Your task to perform on an android device: Go to accessibility settings Image 0: 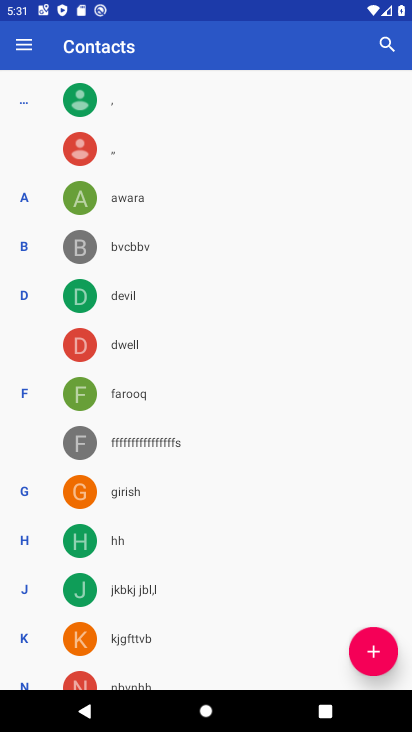
Step 0: press home button
Your task to perform on an android device: Go to accessibility settings Image 1: 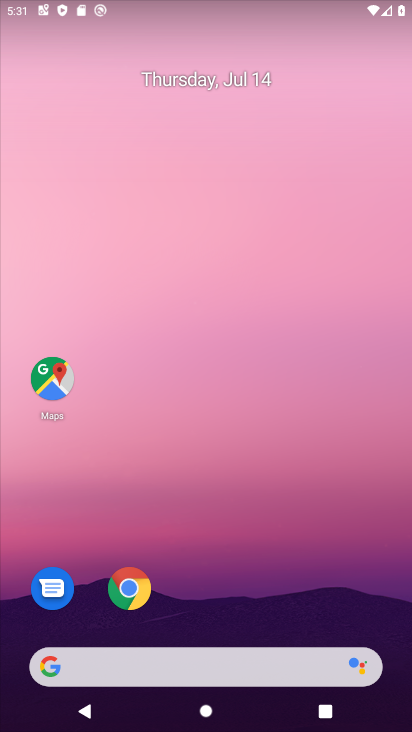
Step 1: drag from (149, 615) to (178, 307)
Your task to perform on an android device: Go to accessibility settings Image 2: 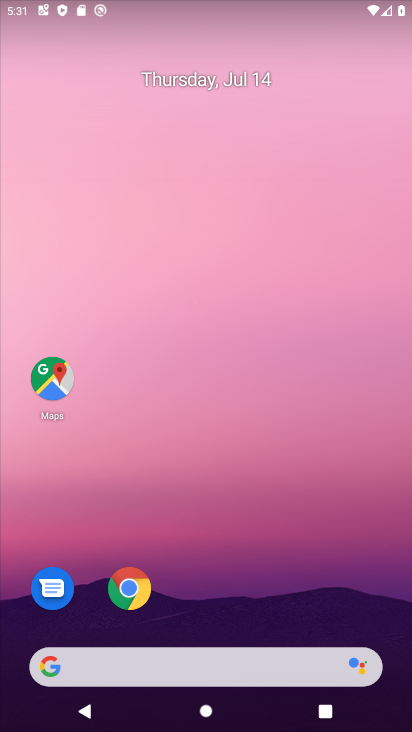
Step 2: drag from (244, 653) to (275, 230)
Your task to perform on an android device: Go to accessibility settings Image 3: 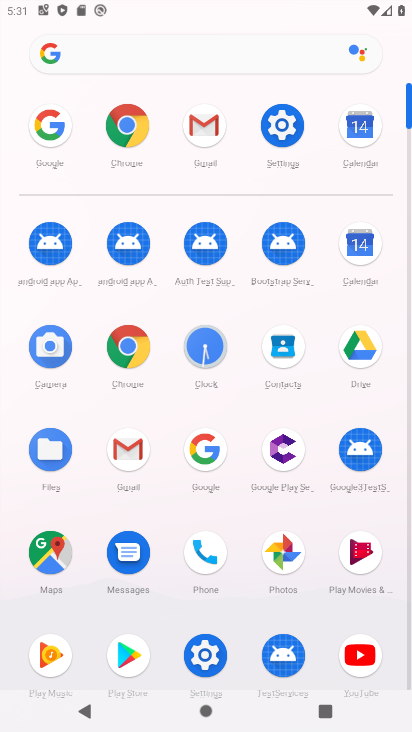
Step 3: click (281, 131)
Your task to perform on an android device: Go to accessibility settings Image 4: 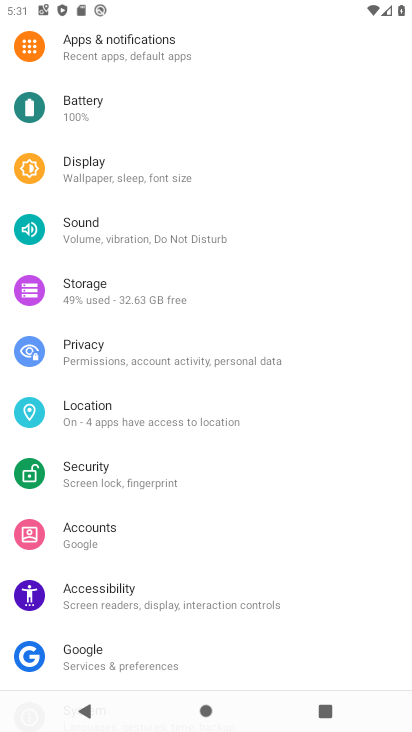
Step 4: click (86, 587)
Your task to perform on an android device: Go to accessibility settings Image 5: 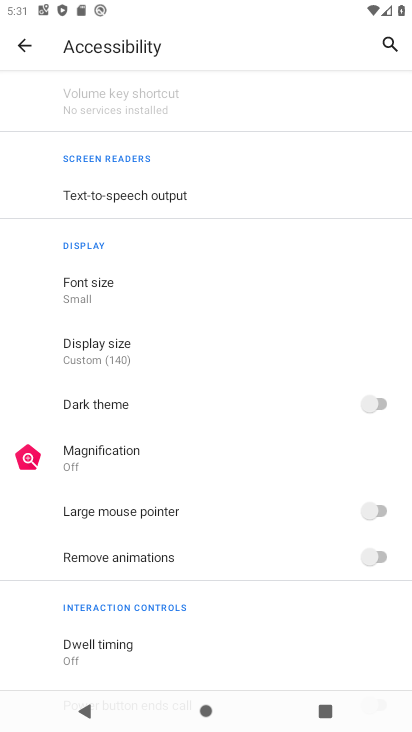
Step 5: task complete